Your task to perform on an android device: change notifications settings Image 0: 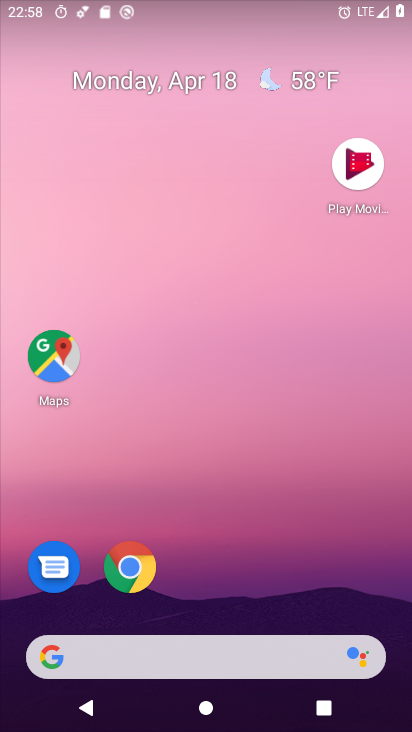
Step 0: drag from (260, 175) to (283, 102)
Your task to perform on an android device: change notifications settings Image 1: 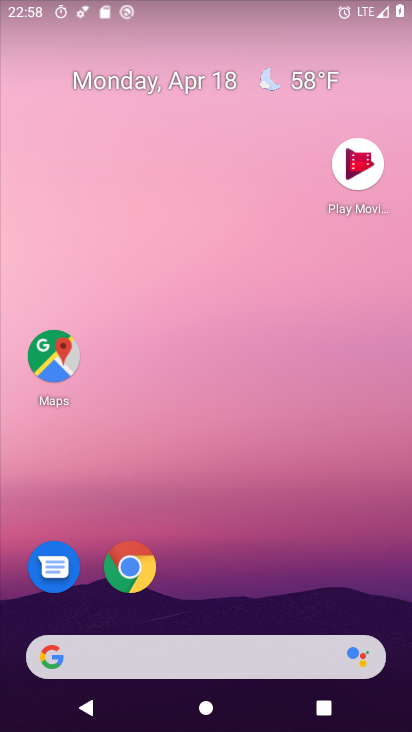
Step 1: drag from (256, 502) to (296, 301)
Your task to perform on an android device: change notifications settings Image 2: 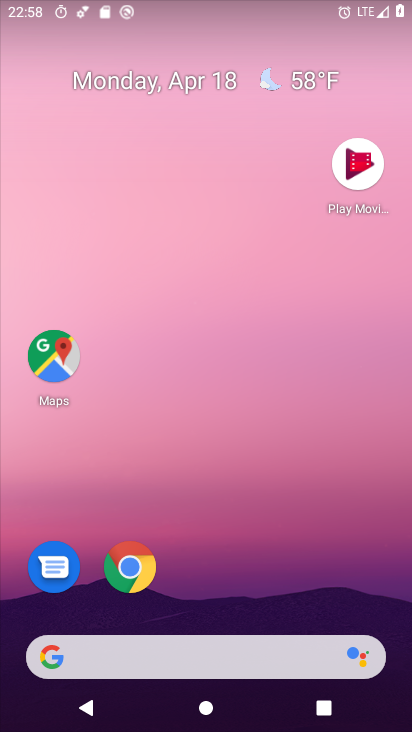
Step 2: drag from (206, 571) to (250, 220)
Your task to perform on an android device: change notifications settings Image 3: 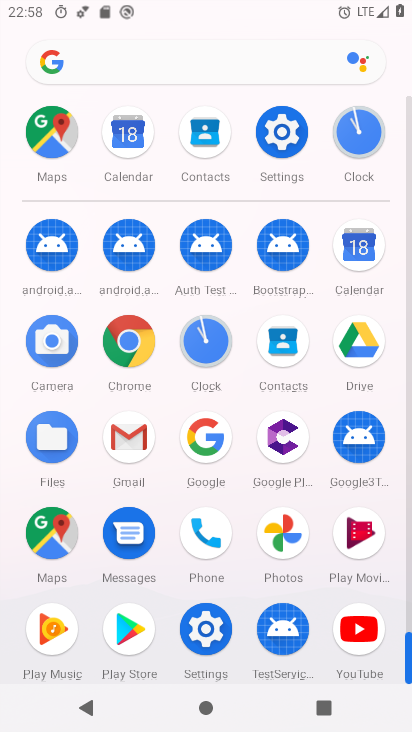
Step 3: drag from (155, 662) to (207, 228)
Your task to perform on an android device: change notifications settings Image 4: 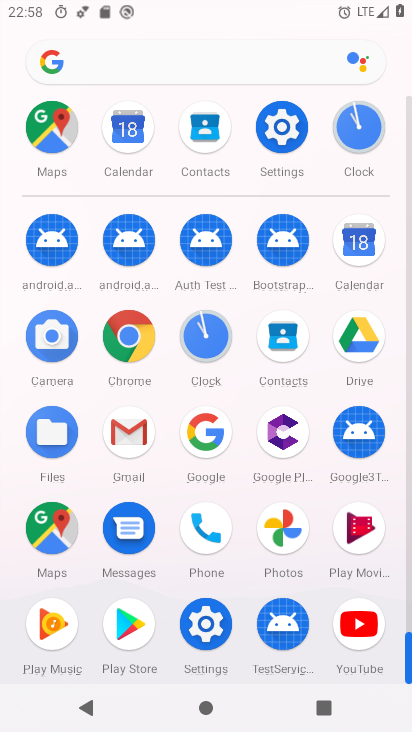
Step 4: click (196, 625)
Your task to perform on an android device: change notifications settings Image 5: 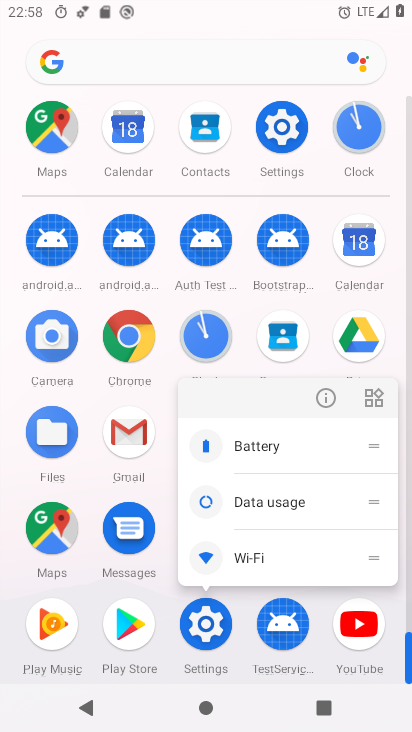
Step 5: click (326, 391)
Your task to perform on an android device: change notifications settings Image 6: 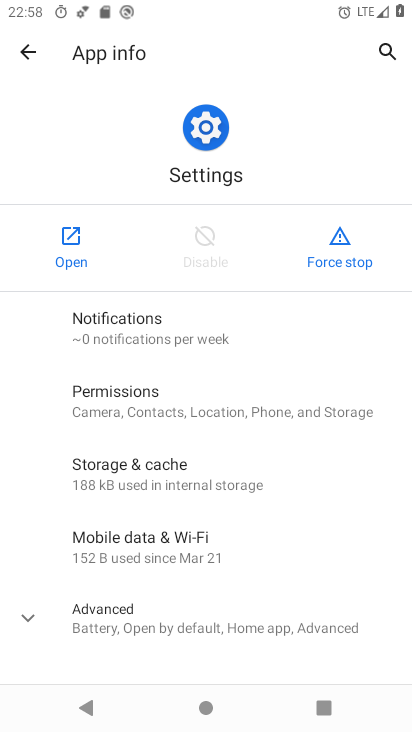
Step 6: click (70, 233)
Your task to perform on an android device: change notifications settings Image 7: 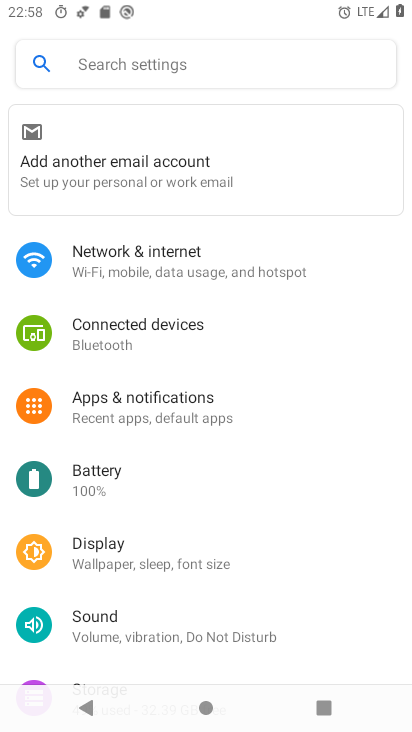
Step 7: drag from (206, 589) to (316, 239)
Your task to perform on an android device: change notifications settings Image 8: 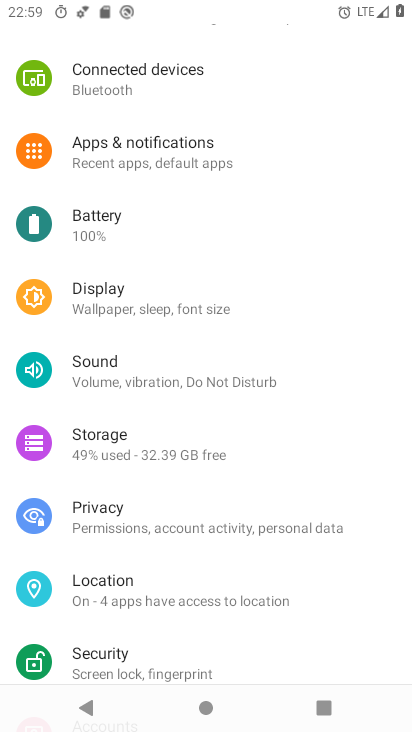
Step 8: drag from (175, 605) to (234, 161)
Your task to perform on an android device: change notifications settings Image 9: 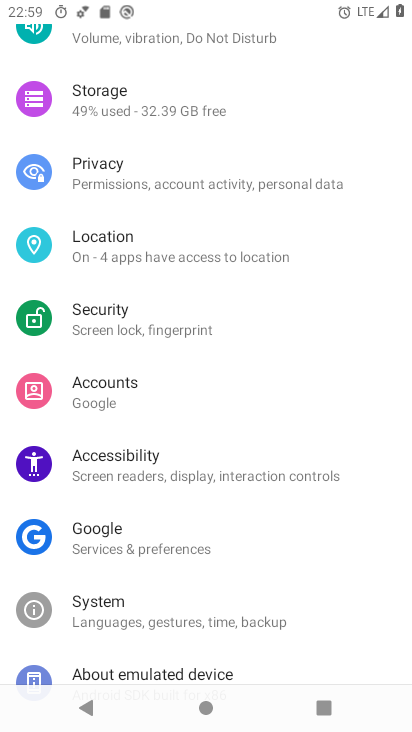
Step 9: drag from (234, 132) to (231, 685)
Your task to perform on an android device: change notifications settings Image 10: 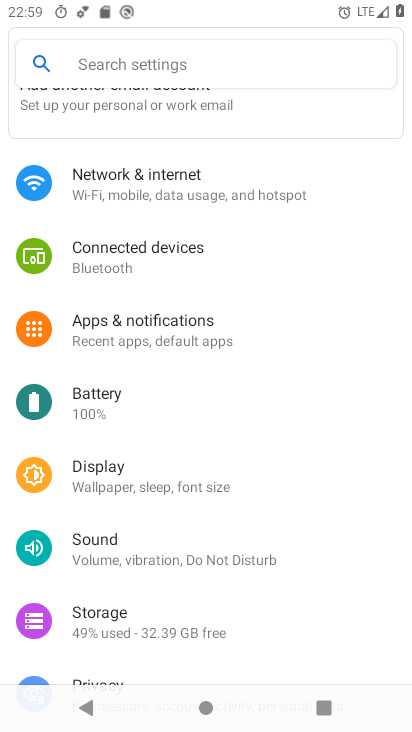
Step 10: click (194, 337)
Your task to perform on an android device: change notifications settings Image 11: 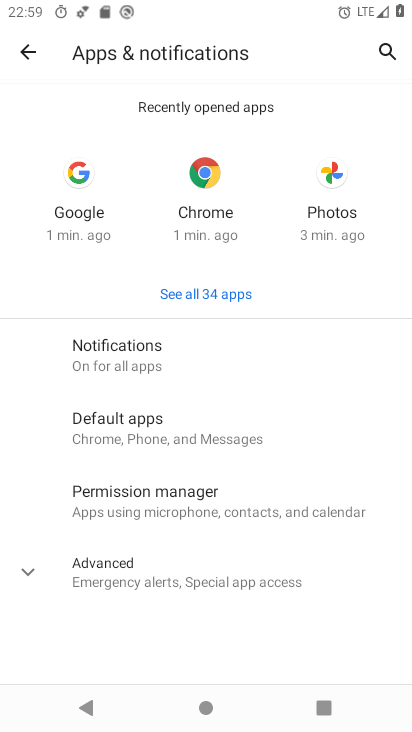
Step 11: drag from (201, 639) to (291, 263)
Your task to perform on an android device: change notifications settings Image 12: 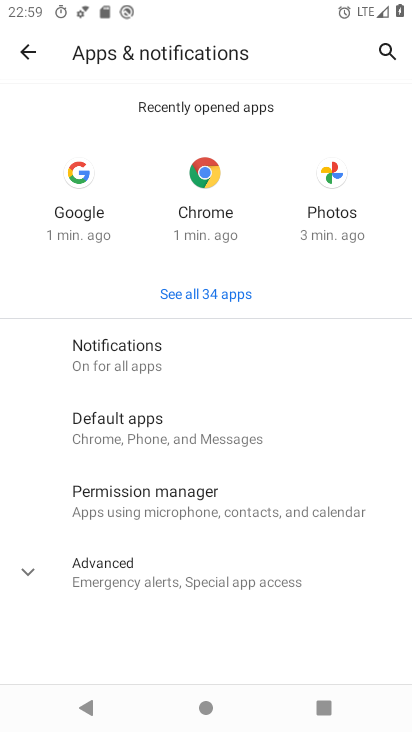
Step 12: click (148, 369)
Your task to perform on an android device: change notifications settings Image 13: 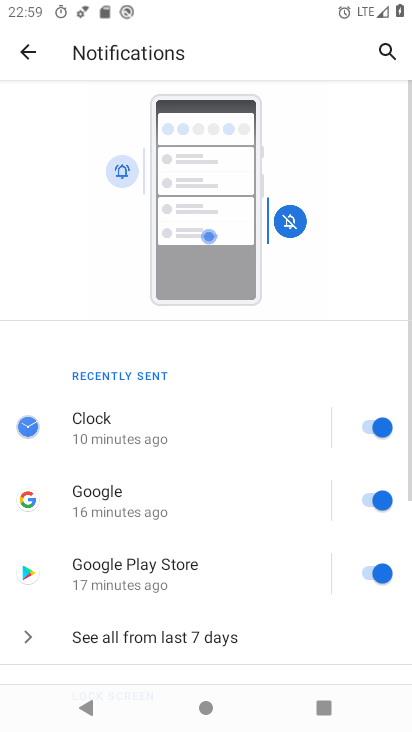
Step 13: drag from (250, 577) to (384, 0)
Your task to perform on an android device: change notifications settings Image 14: 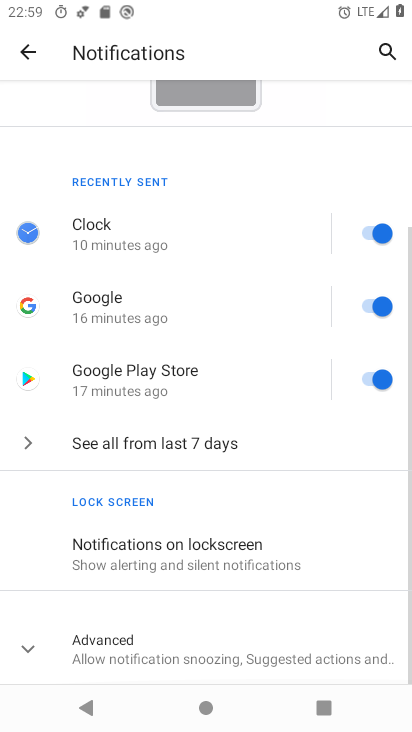
Step 14: click (152, 649)
Your task to perform on an android device: change notifications settings Image 15: 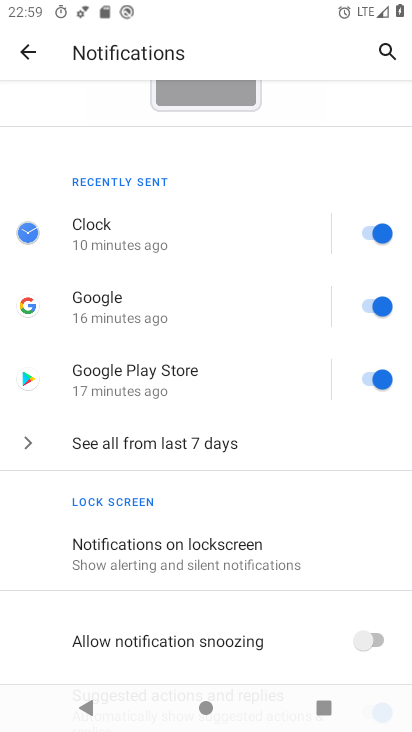
Step 15: click (371, 639)
Your task to perform on an android device: change notifications settings Image 16: 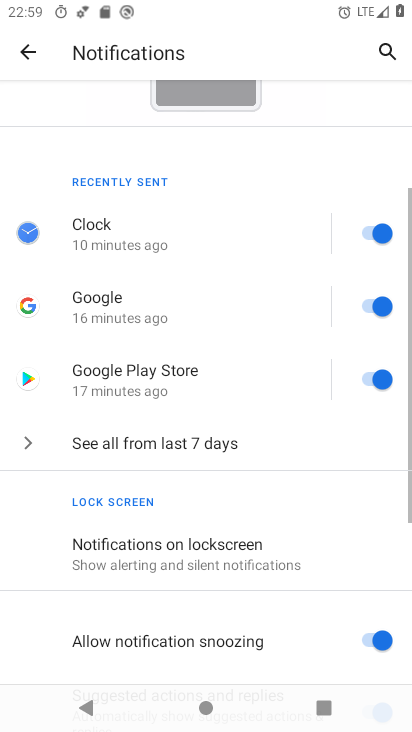
Step 16: task complete